Your task to perform on an android device: Open network settings Image 0: 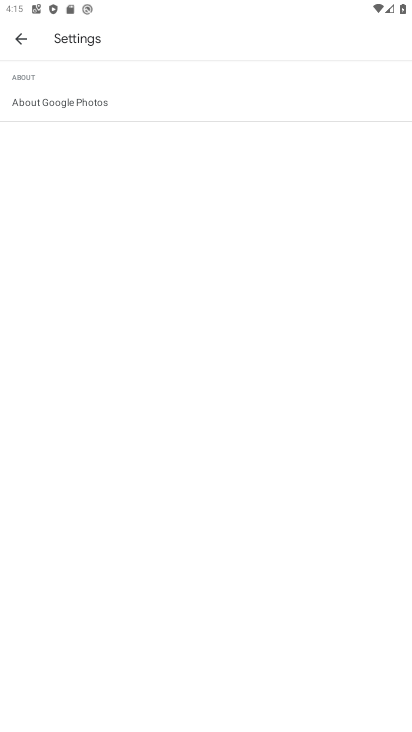
Step 0: drag from (204, 2) to (239, 644)
Your task to perform on an android device: Open network settings Image 1: 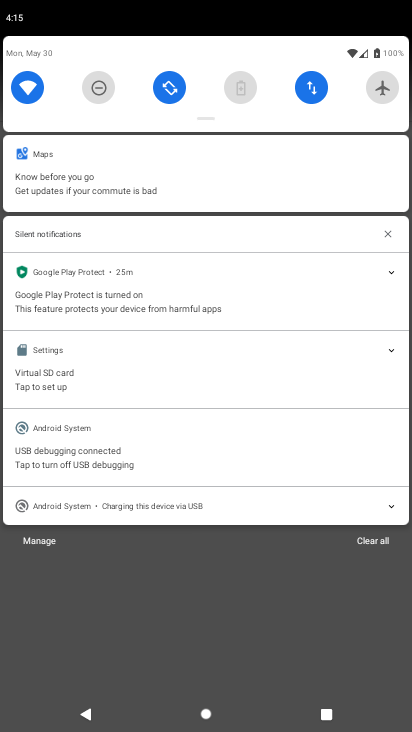
Step 1: click (306, 97)
Your task to perform on an android device: Open network settings Image 2: 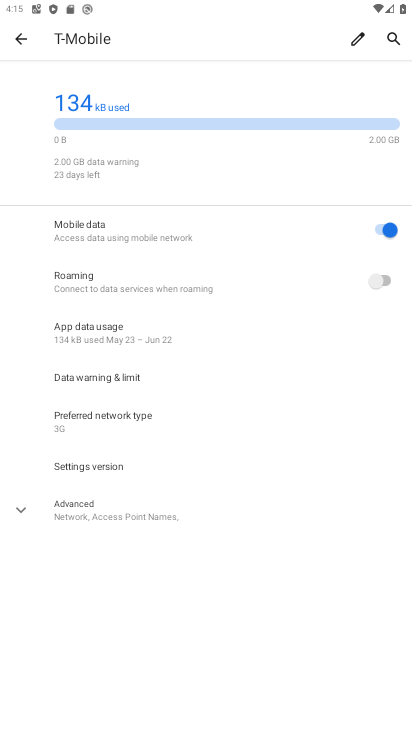
Step 2: task complete